Your task to perform on an android device: turn off airplane mode Image 0: 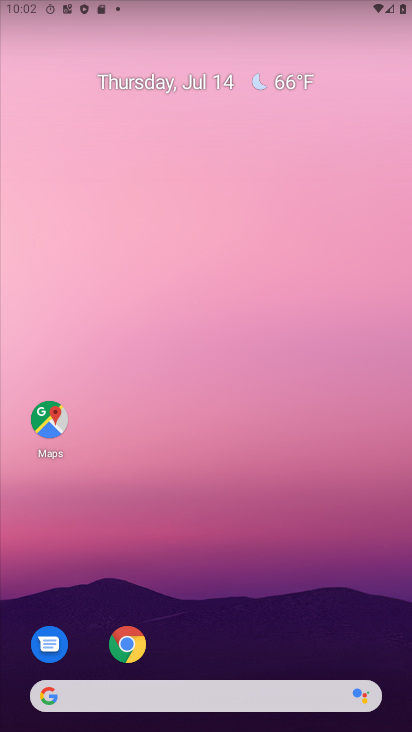
Step 0: drag from (245, 711) to (228, 249)
Your task to perform on an android device: turn off airplane mode Image 1: 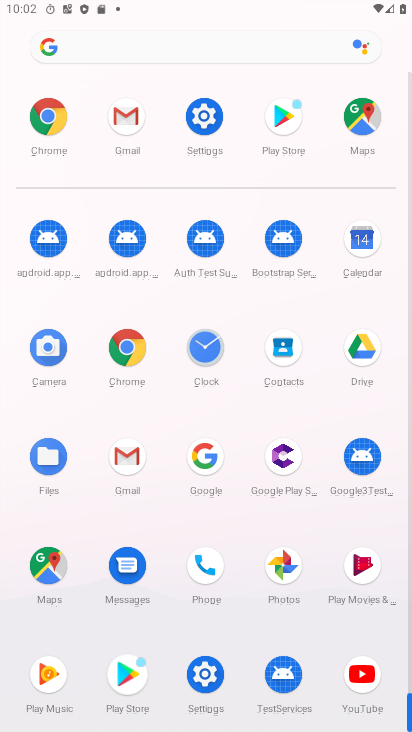
Step 1: click (212, 124)
Your task to perform on an android device: turn off airplane mode Image 2: 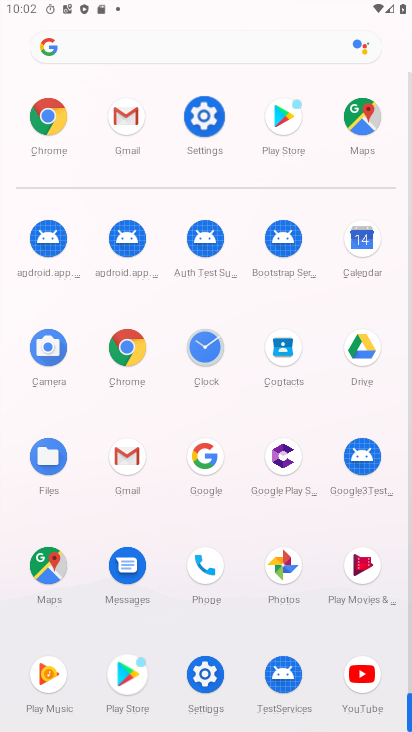
Step 2: click (211, 124)
Your task to perform on an android device: turn off airplane mode Image 3: 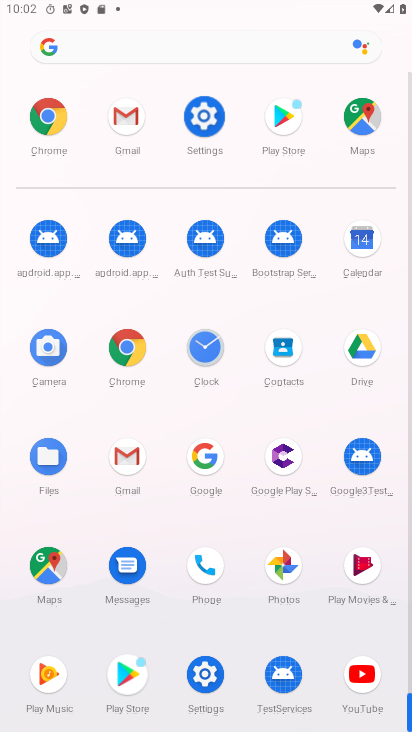
Step 3: click (211, 124)
Your task to perform on an android device: turn off airplane mode Image 4: 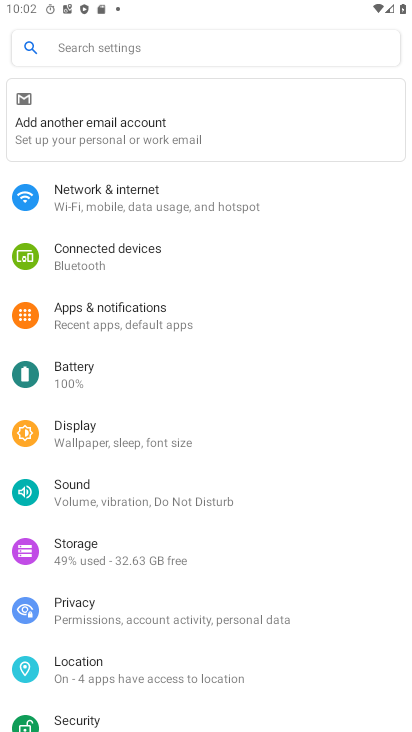
Step 4: click (122, 180)
Your task to perform on an android device: turn off airplane mode Image 5: 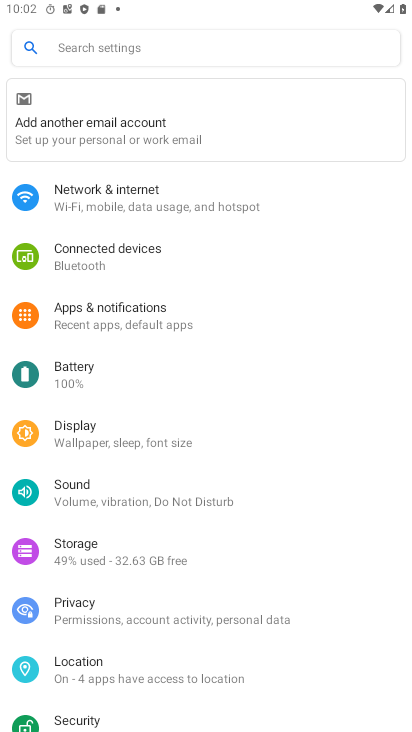
Step 5: click (113, 201)
Your task to perform on an android device: turn off airplane mode Image 6: 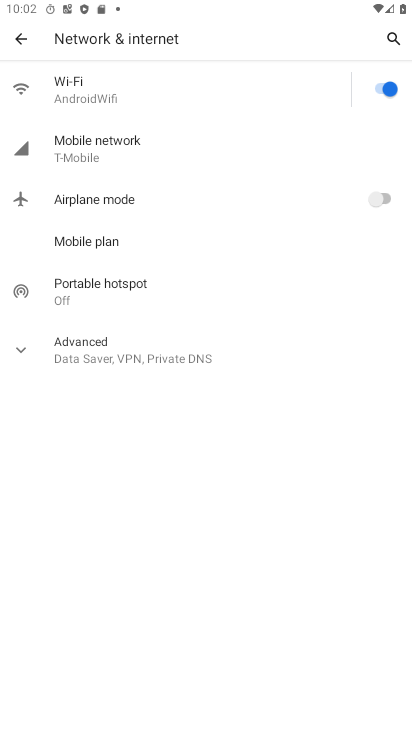
Step 6: task complete